Your task to perform on an android device: toggle data saver in the chrome app Image 0: 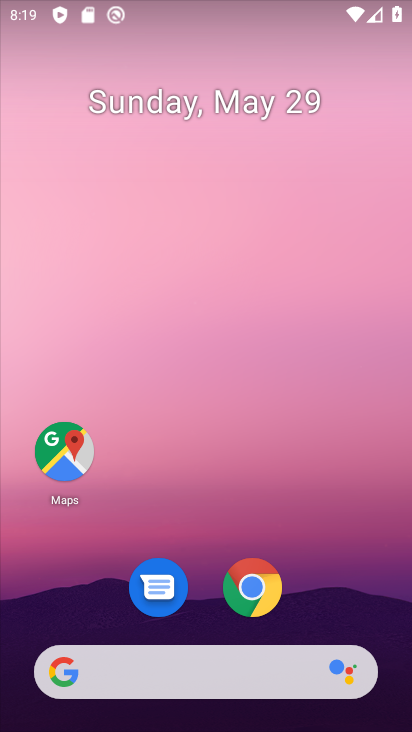
Step 0: click (259, 593)
Your task to perform on an android device: toggle data saver in the chrome app Image 1: 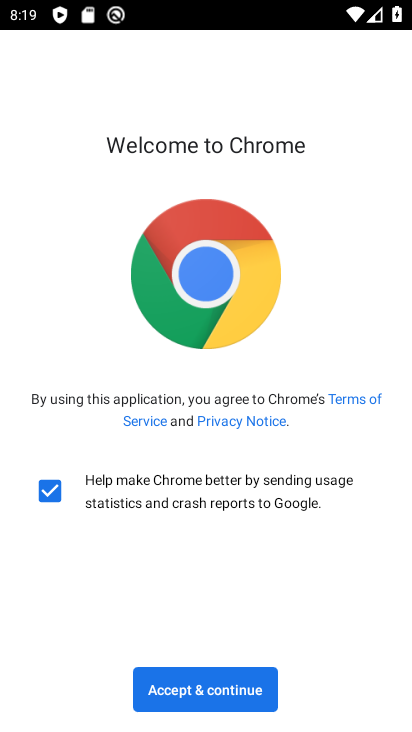
Step 1: click (220, 688)
Your task to perform on an android device: toggle data saver in the chrome app Image 2: 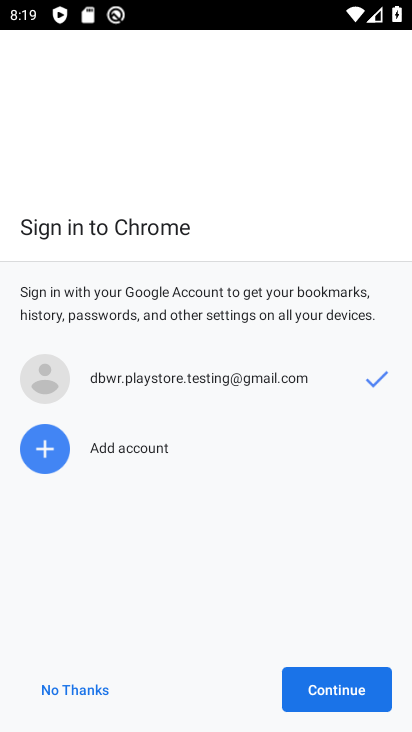
Step 2: click (349, 696)
Your task to perform on an android device: toggle data saver in the chrome app Image 3: 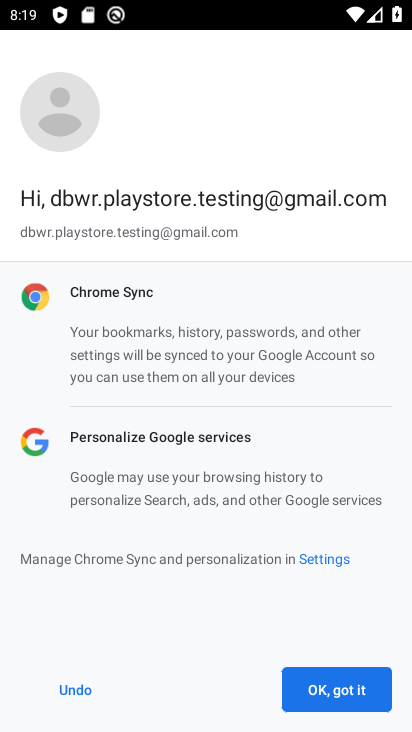
Step 3: click (349, 696)
Your task to perform on an android device: toggle data saver in the chrome app Image 4: 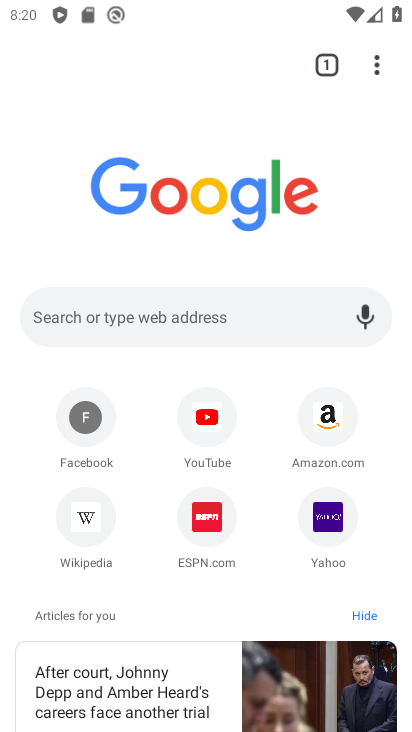
Step 4: click (392, 67)
Your task to perform on an android device: toggle data saver in the chrome app Image 5: 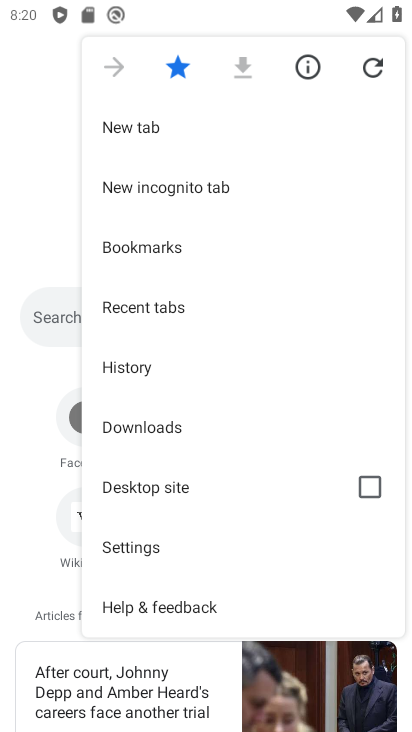
Step 5: click (118, 550)
Your task to perform on an android device: toggle data saver in the chrome app Image 6: 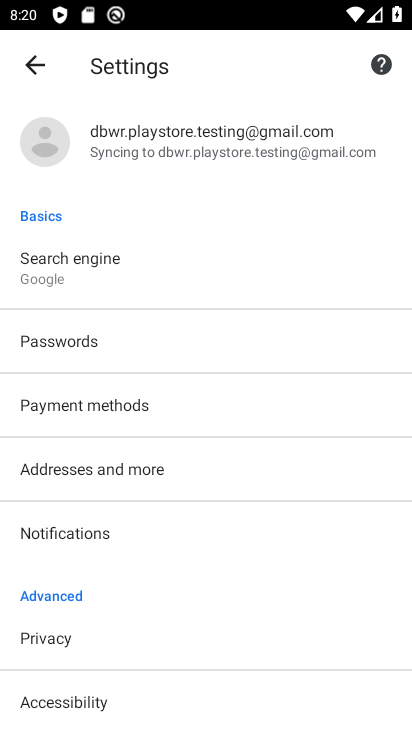
Step 6: drag from (112, 627) to (129, 179)
Your task to perform on an android device: toggle data saver in the chrome app Image 7: 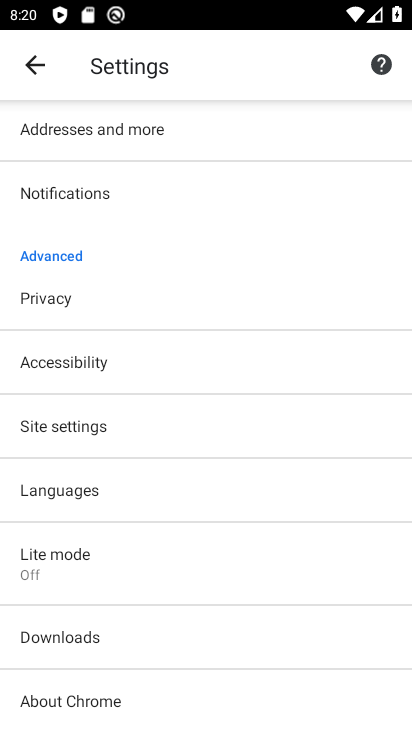
Step 7: click (96, 569)
Your task to perform on an android device: toggle data saver in the chrome app Image 8: 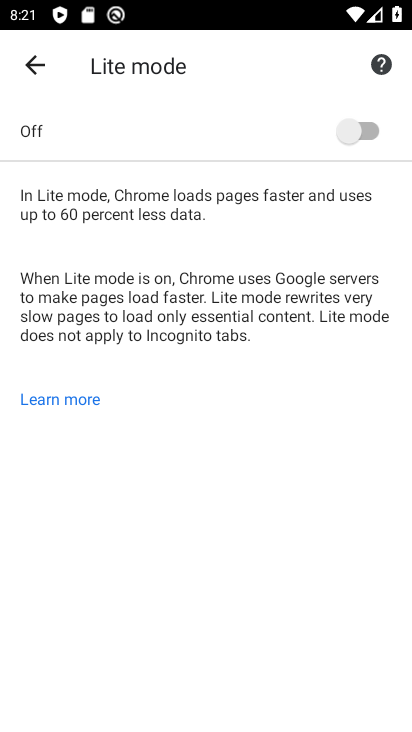
Step 8: click (368, 126)
Your task to perform on an android device: toggle data saver in the chrome app Image 9: 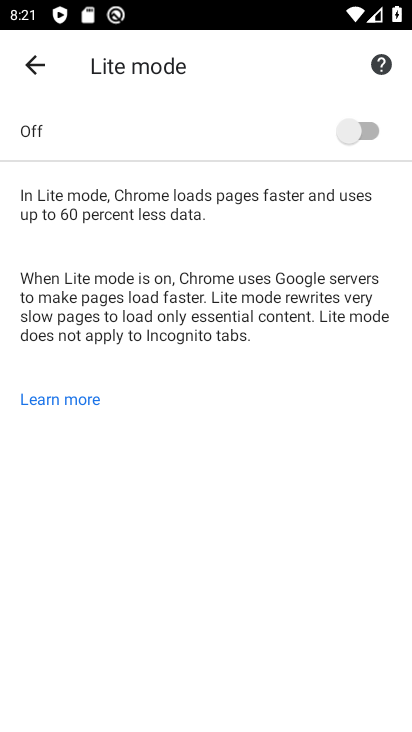
Step 9: click (368, 126)
Your task to perform on an android device: toggle data saver in the chrome app Image 10: 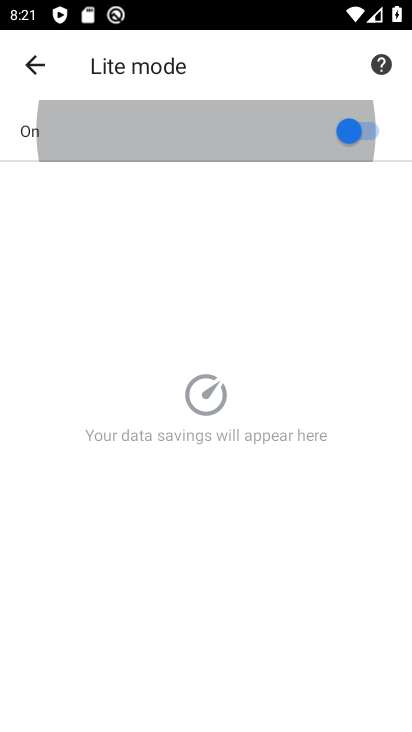
Step 10: click (368, 126)
Your task to perform on an android device: toggle data saver in the chrome app Image 11: 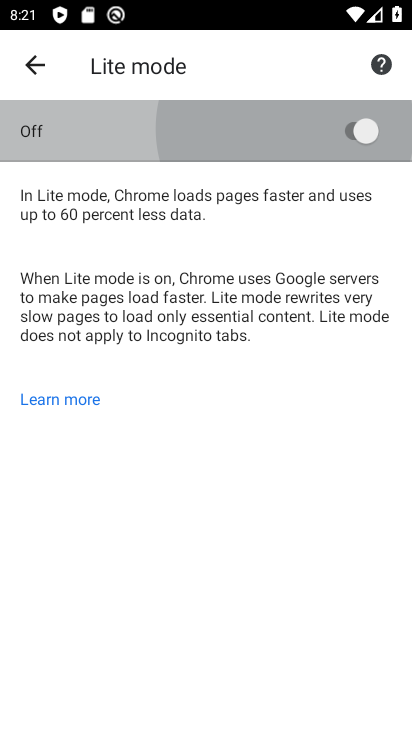
Step 11: click (368, 126)
Your task to perform on an android device: toggle data saver in the chrome app Image 12: 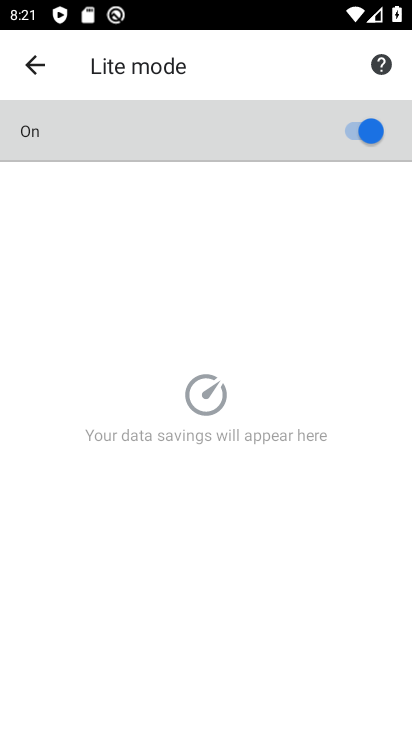
Step 12: click (368, 126)
Your task to perform on an android device: toggle data saver in the chrome app Image 13: 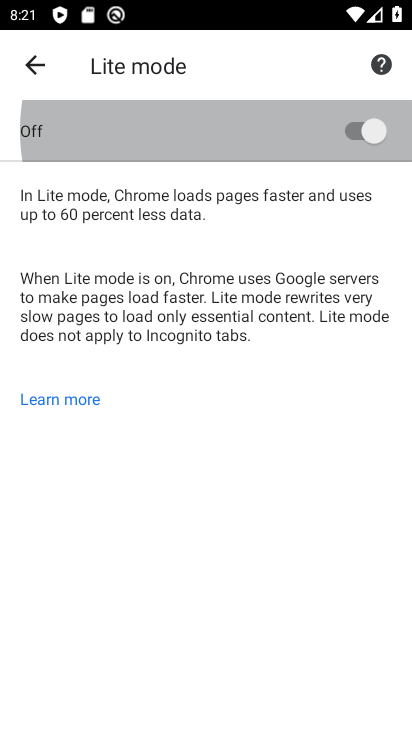
Step 13: click (368, 126)
Your task to perform on an android device: toggle data saver in the chrome app Image 14: 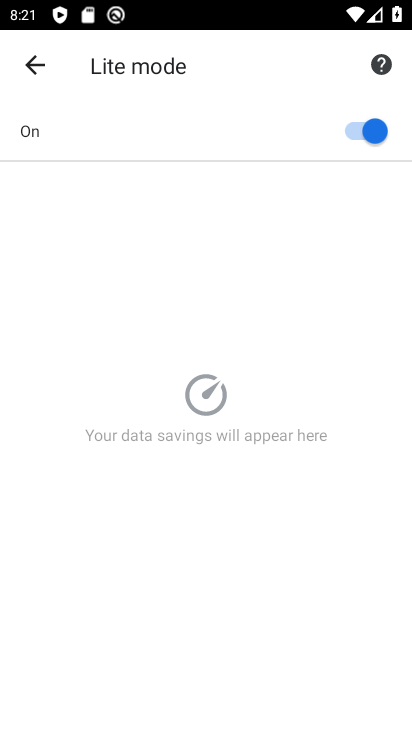
Step 14: task complete